Your task to perform on an android device: turn on translation in the chrome app Image 0: 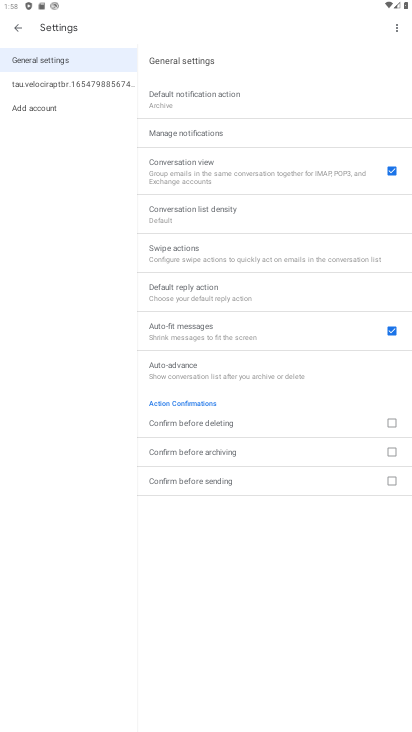
Step 0: press home button
Your task to perform on an android device: turn on translation in the chrome app Image 1: 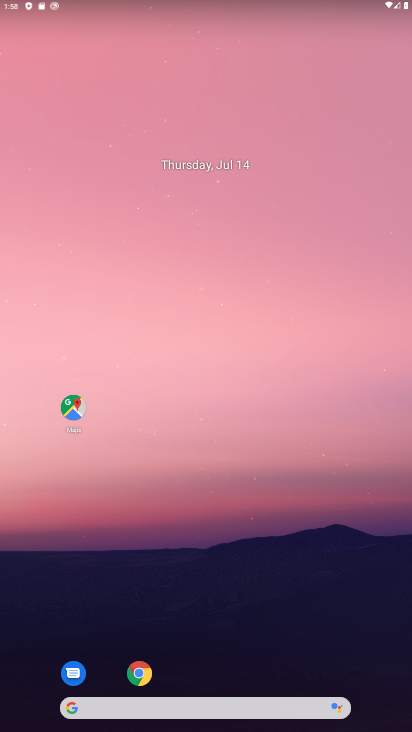
Step 1: click (136, 665)
Your task to perform on an android device: turn on translation in the chrome app Image 2: 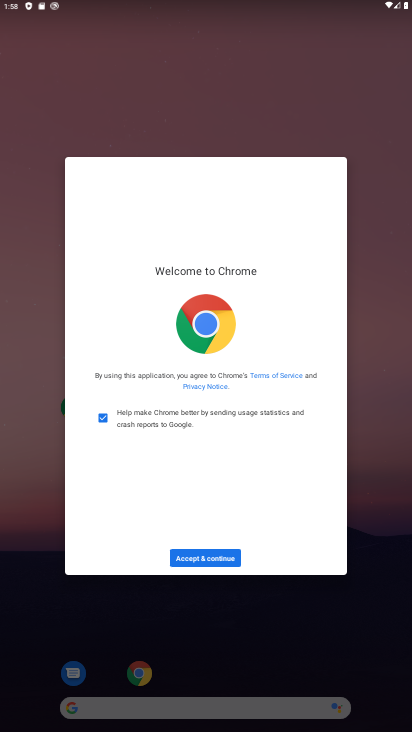
Step 2: click (203, 551)
Your task to perform on an android device: turn on translation in the chrome app Image 3: 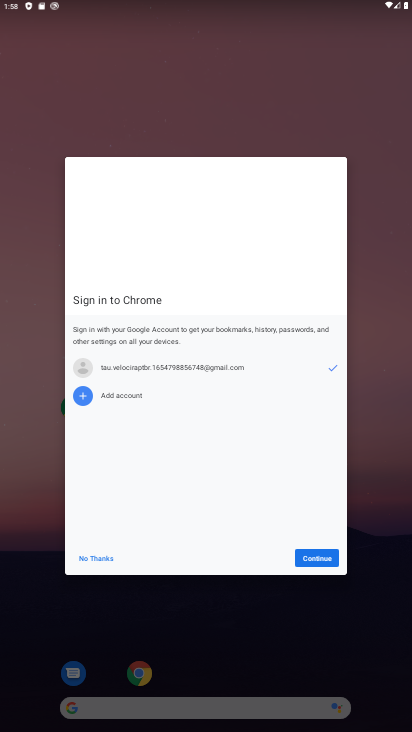
Step 3: click (310, 550)
Your task to perform on an android device: turn on translation in the chrome app Image 4: 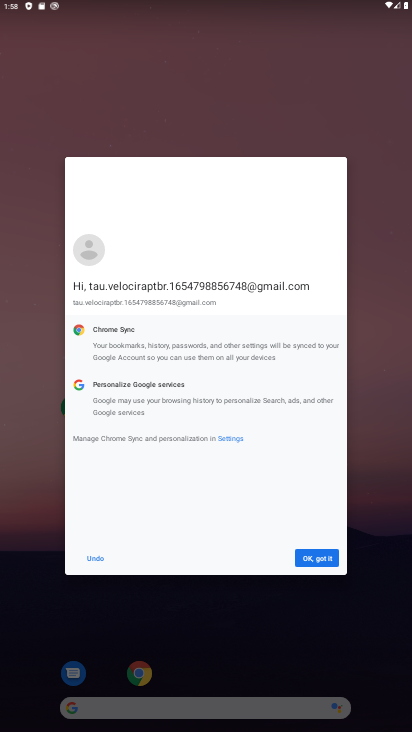
Step 4: click (318, 553)
Your task to perform on an android device: turn on translation in the chrome app Image 5: 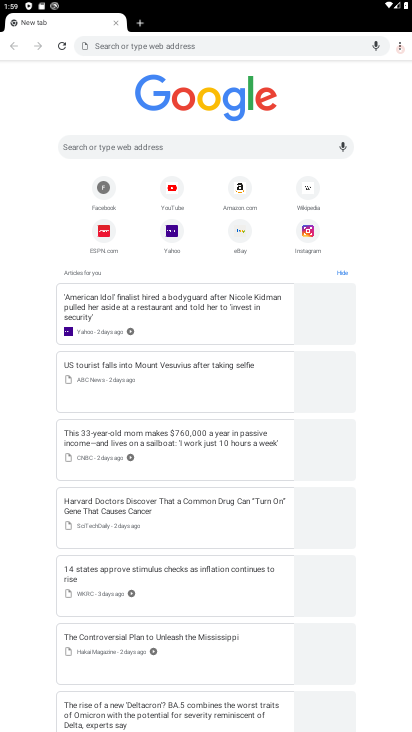
Step 5: click (399, 47)
Your task to perform on an android device: turn on translation in the chrome app Image 6: 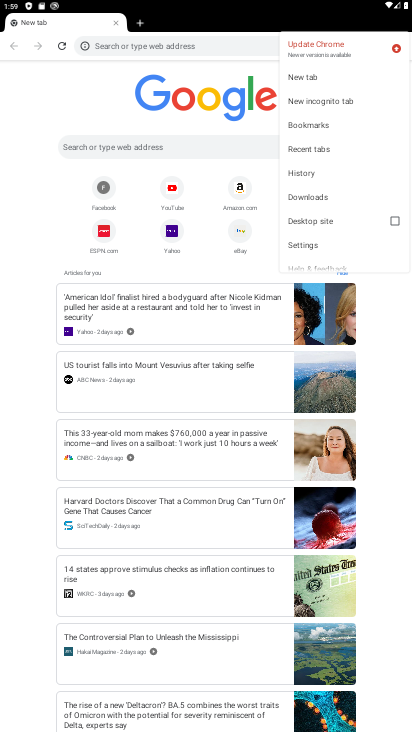
Step 6: click (307, 239)
Your task to perform on an android device: turn on translation in the chrome app Image 7: 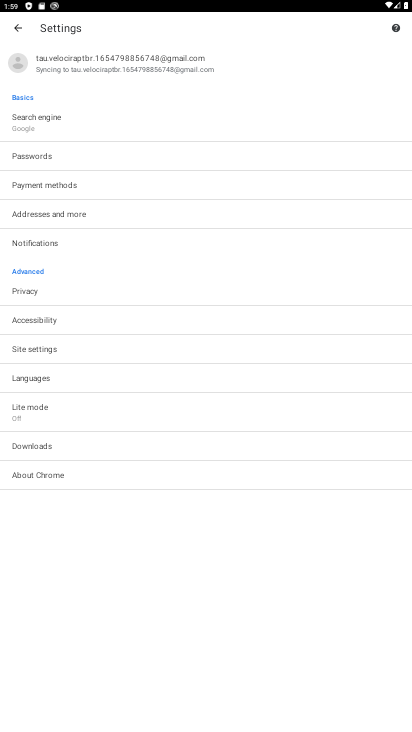
Step 7: click (31, 370)
Your task to perform on an android device: turn on translation in the chrome app Image 8: 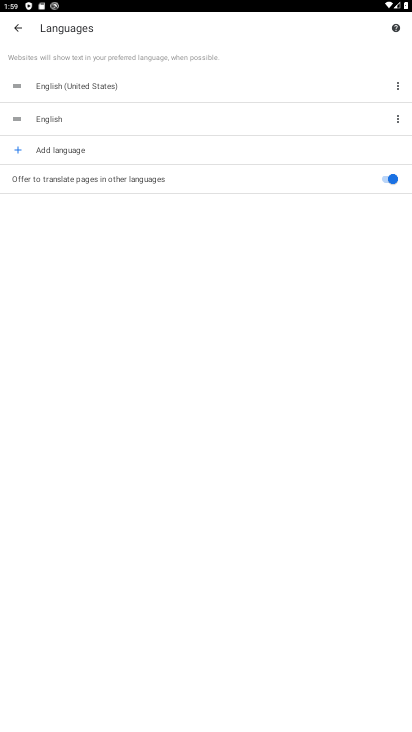
Step 8: task complete